Your task to perform on an android device: Open Google Chrome and open the bookmarks view Image 0: 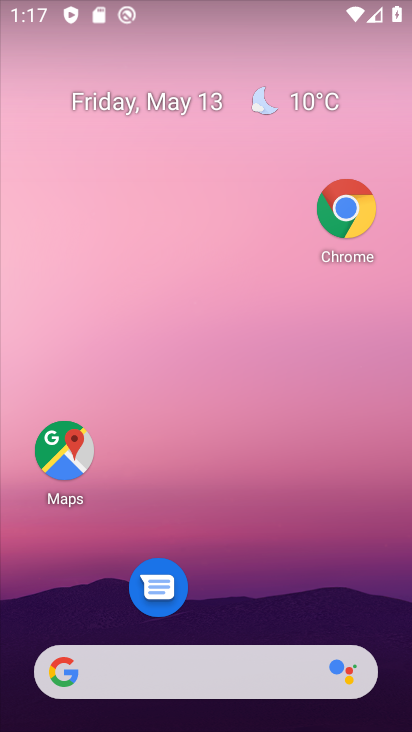
Step 0: click (347, 217)
Your task to perform on an android device: Open Google Chrome and open the bookmarks view Image 1: 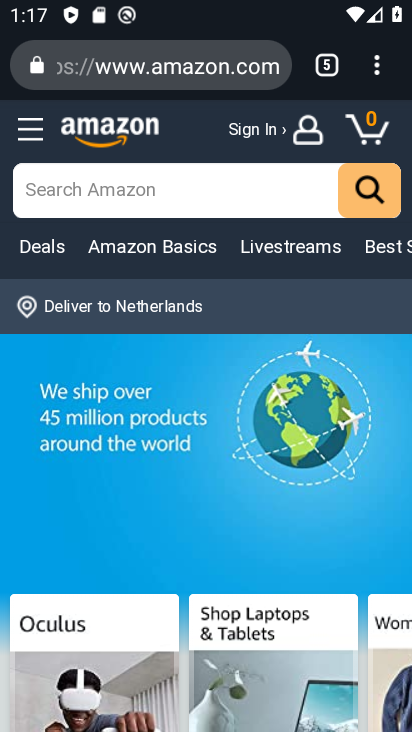
Step 1: task complete